Your task to perform on an android device: turn off airplane mode Image 0: 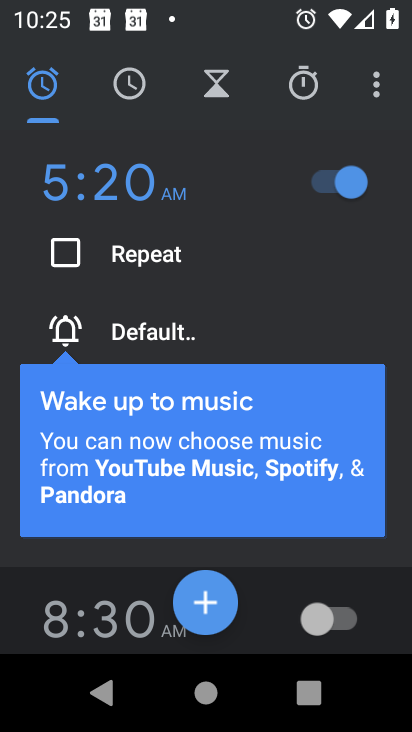
Step 0: press home button
Your task to perform on an android device: turn off airplane mode Image 1: 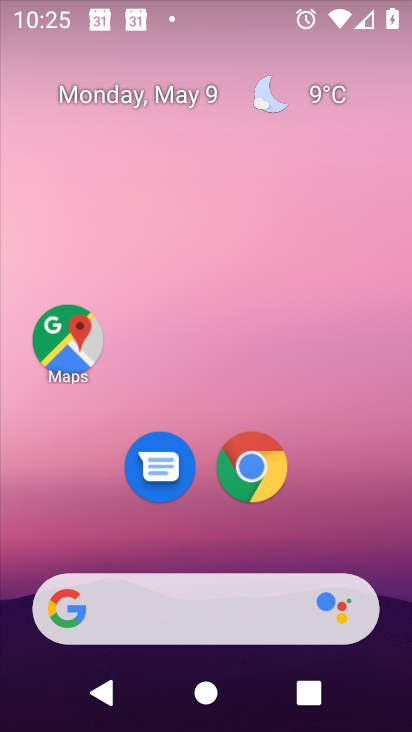
Step 1: drag from (314, 513) to (271, 11)
Your task to perform on an android device: turn off airplane mode Image 2: 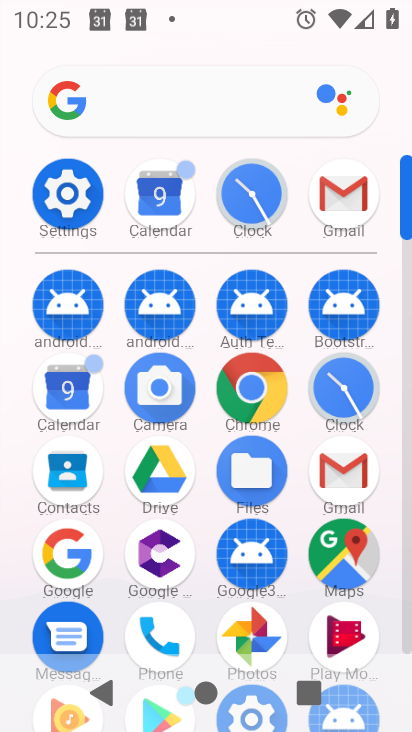
Step 2: click (46, 198)
Your task to perform on an android device: turn off airplane mode Image 3: 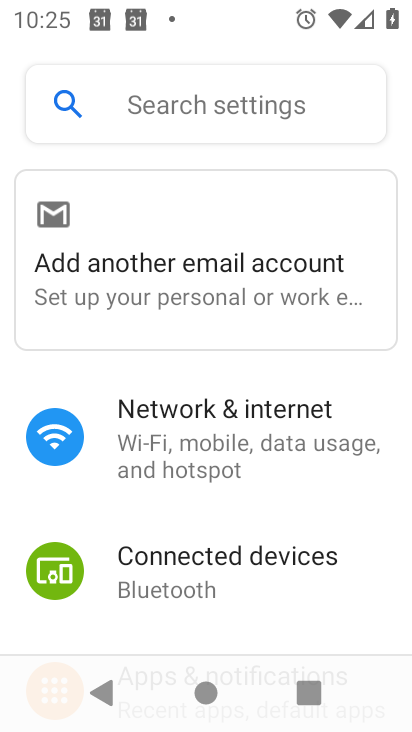
Step 3: click (241, 449)
Your task to perform on an android device: turn off airplane mode Image 4: 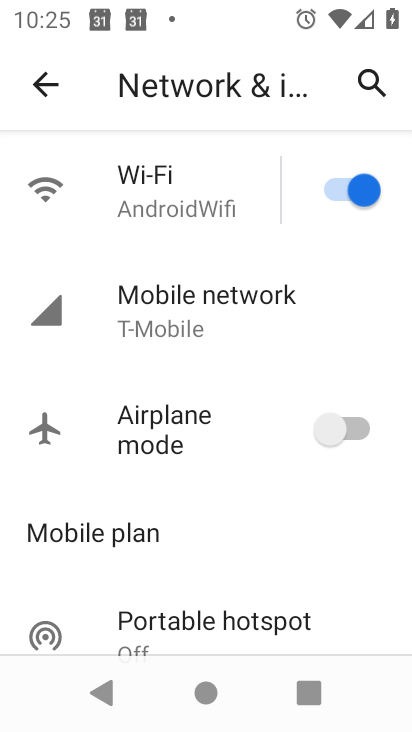
Step 4: task complete